Your task to perform on an android device: toggle airplane mode Image 0: 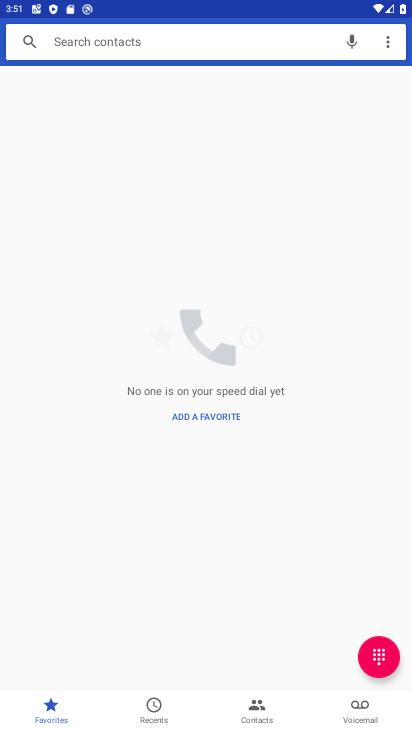
Step 0: press home button
Your task to perform on an android device: toggle airplane mode Image 1: 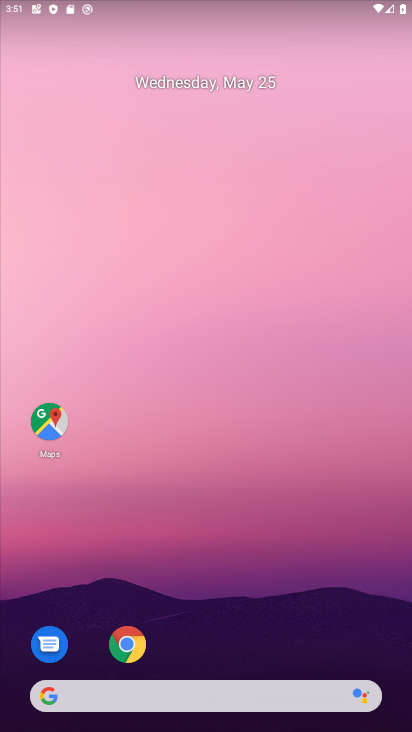
Step 1: drag from (263, 657) to (287, 57)
Your task to perform on an android device: toggle airplane mode Image 2: 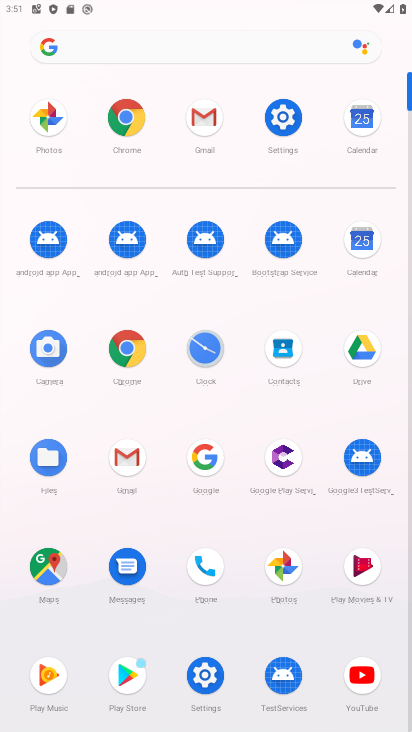
Step 2: click (283, 122)
Your task to perform on an android device: toggle airplane mode Image 3: 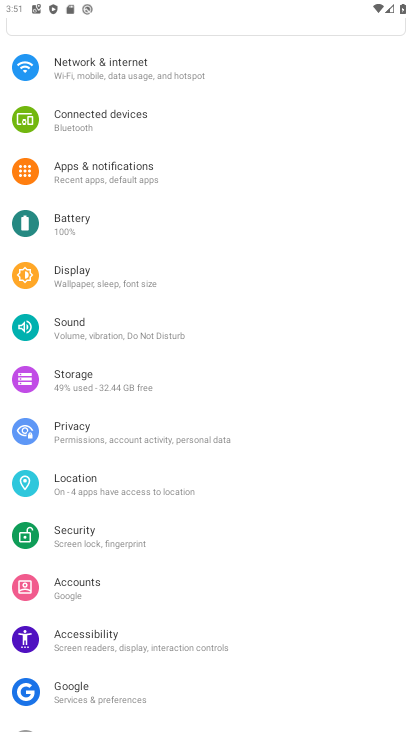
Step 3: click (102, 77)
Your task to perform on an android device: toggle airplane mode Image 4: 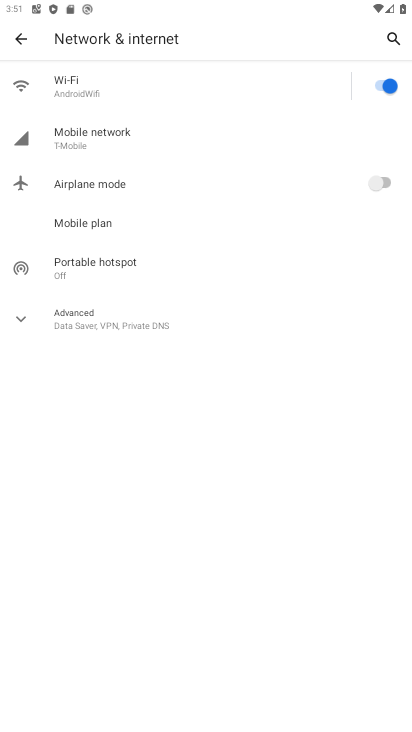
Step 4: click (379, 180)
Your task to perform on an android device: toggle airplane mode Image 5: 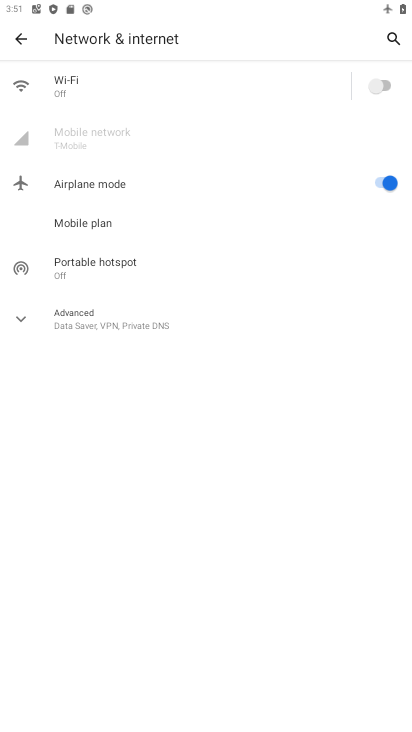
Step 5: task complete